Your task to perform on an android device: turn notification dots on Image 0: 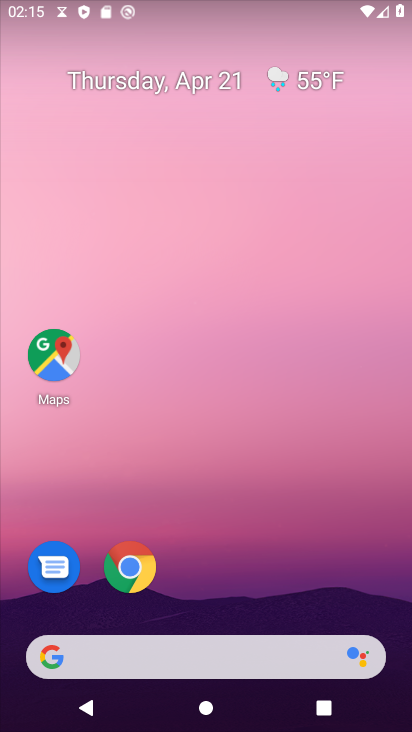
Step 0: drag from (190, 579) to (304, 107)
Your task to perform on an android device: turn notification dots on Image 1: 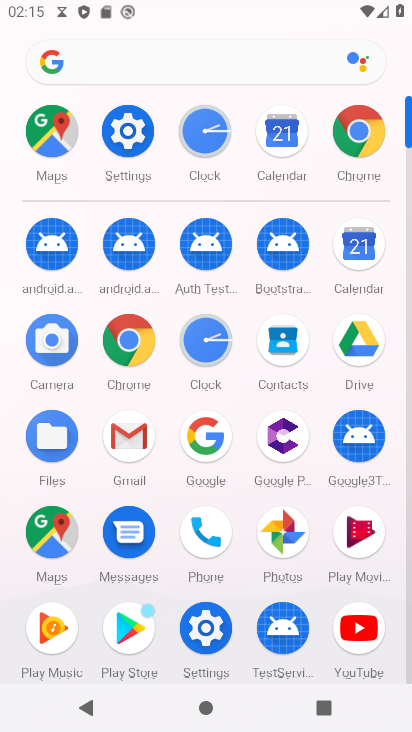
Step 1: click (132, 133)
Your task to perform on an android device: turn notification dots on Image 2: 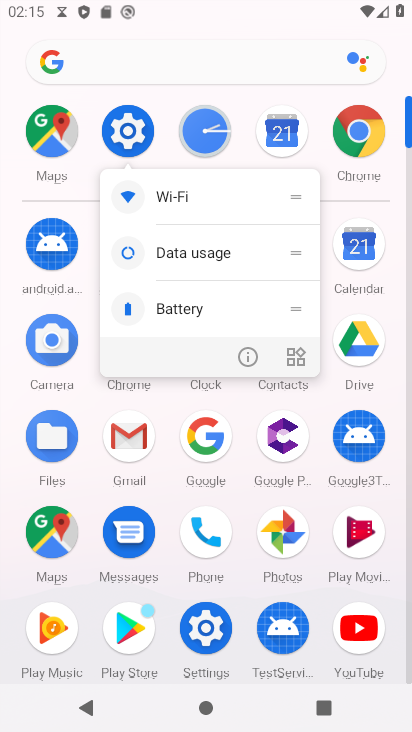
Step 2: click (126, 139)
Your task to perform on an android device: turn notification dots on Image 3: 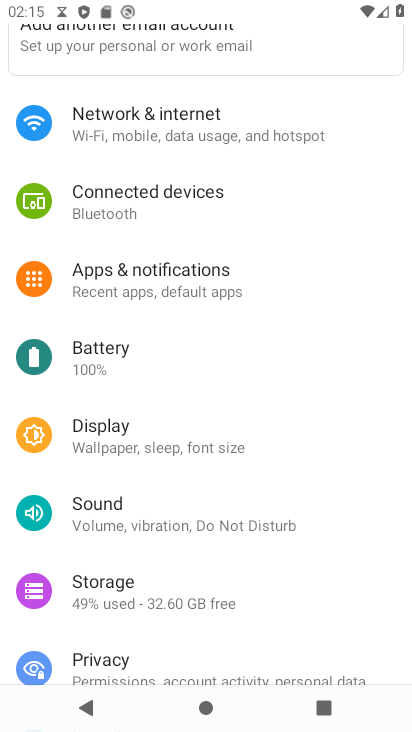
Step 3: click (157, 276)
Your task to perform on an android device: turn notification dots on Image 4: 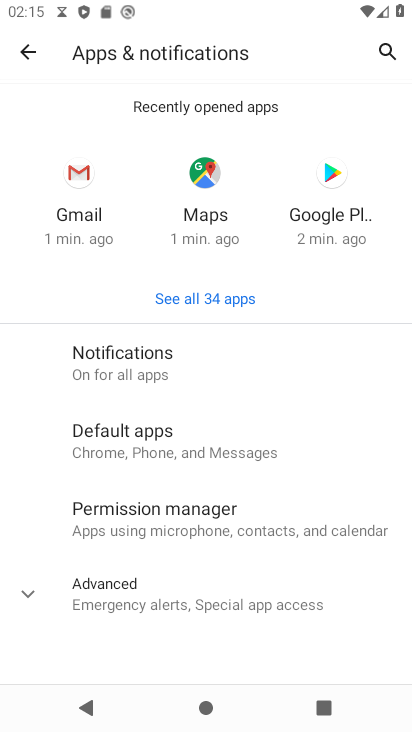
Step 4: click (100, 357)
Your task to perform on an android device: turn notification dots on Image 5: 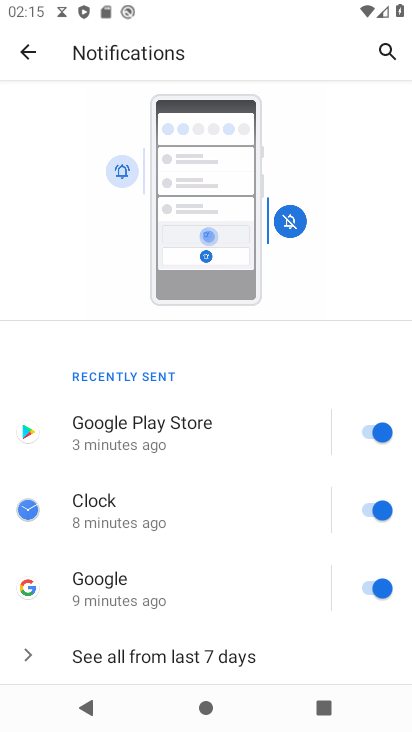
Step 5: drag from (194, 586) to (343, 92)
Your task to perform on an android device: turn notification dots on Image 6: 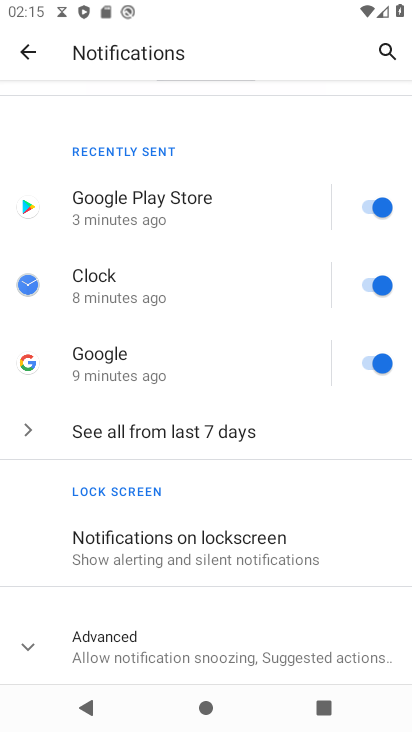
Step 6: click (136, 637)
Your task to perform on an android device: turn notification dots on Image 7: 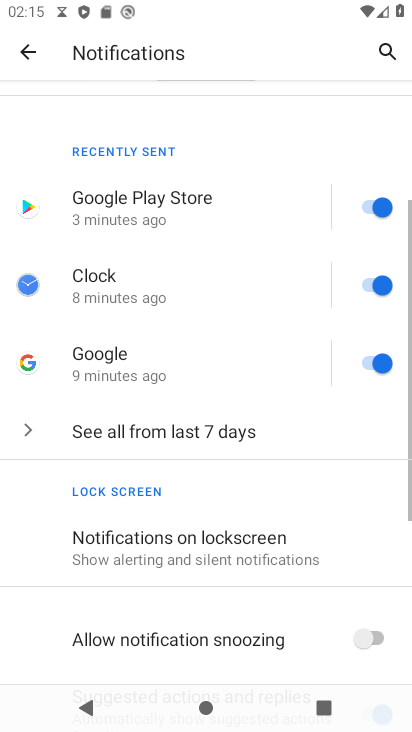
Step 7: task complete